Your task to perform on an android device: Go to calendar. Show me events next week Image 0: 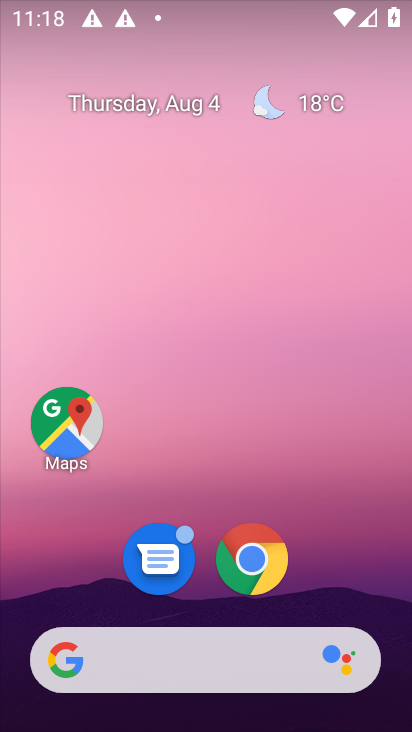
Step 0: drag from (24, 707) to (222, 289)
Your task to perform on an android device: Go to calendar. Show me events next week Image 1: 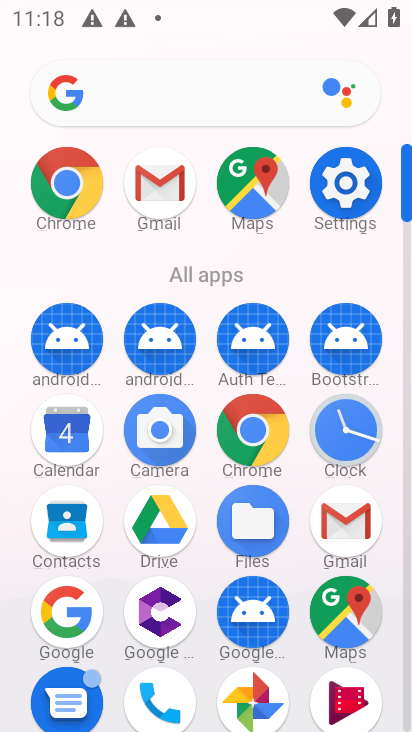
Step 1: click (46, 442)
Your task to perform on an android device: Go to calendar. Show me events next week Image 2: 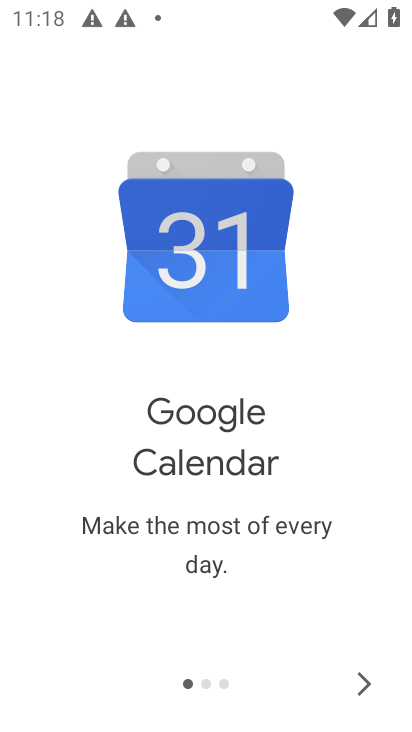
Step 2: click (374, 683)
Your task to perform on an android device: Go to calendar. Show me events next week Image 3: 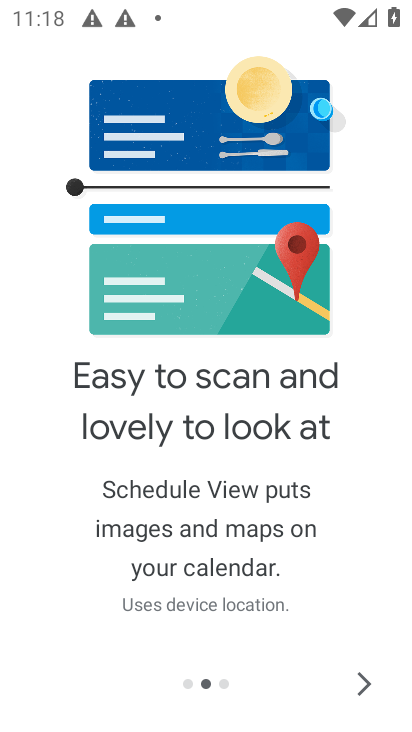
Step 3: click (374, 683)
Your task to perform on an android device: Go to calendar. Show me events next week Image 4: 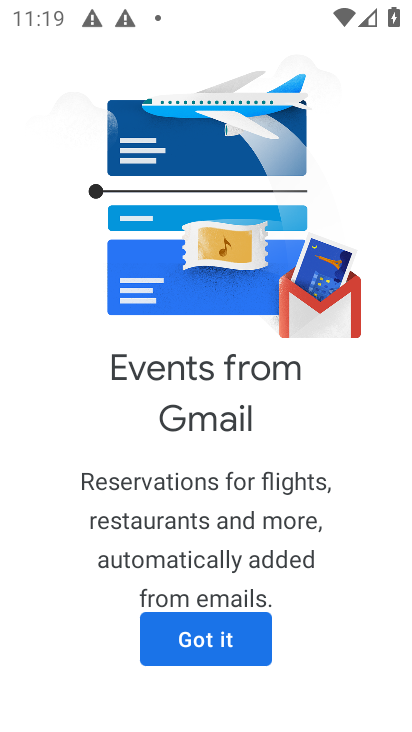
Step 4: click (225, 613)
Your task to perform on an android device: Go to calendar. Show me events next week Image 5: 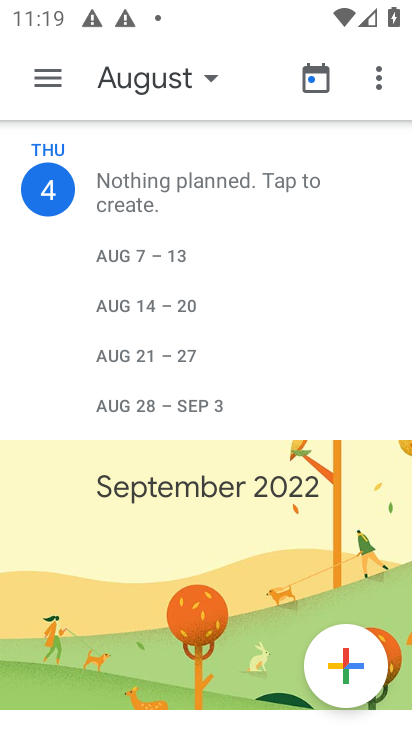
Step 5: click (192, 86)
Your task to perform on an android device: Go to calendar. Show me events next week Image 6: 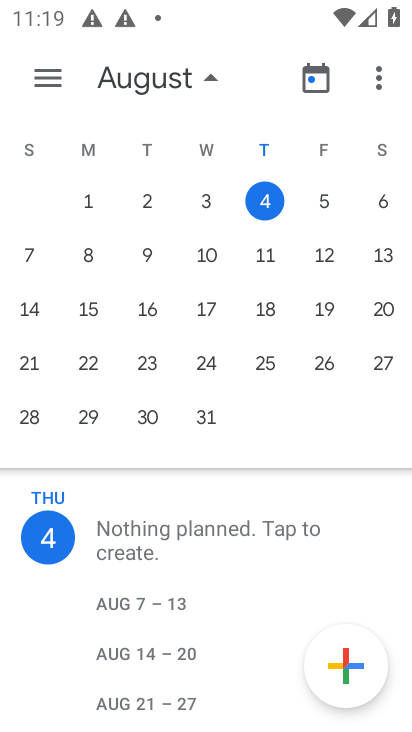
Step 6: task complete